Your task to perform on an android device: Search for vegetarian restaurants on Maps Image 0: 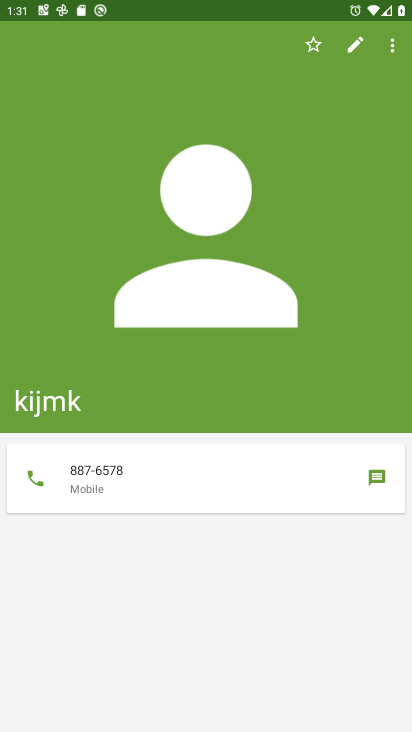
Step 0: drag from (170, 628) to (267, 226)
Your task to perform on an android device: Search for vegetarian restaurants on Maps Image 1: 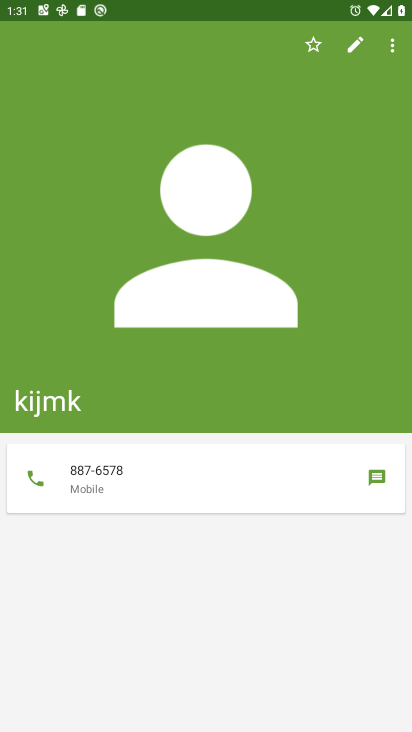
Step 1: press home button
Your task to perform on an android device: Search for vegetarian restaurants on Maps Image 2: 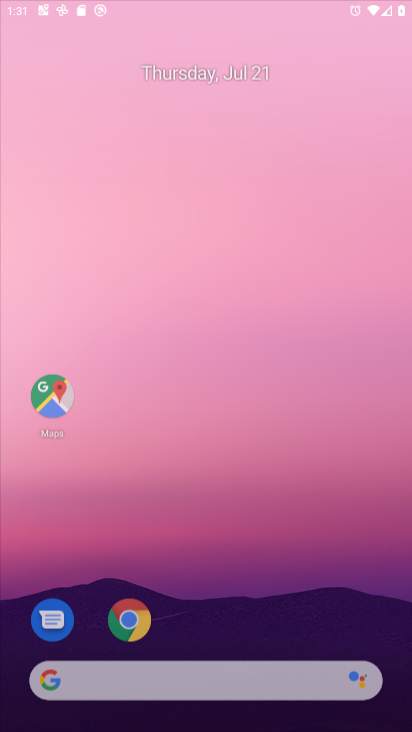
Step 2: drag from (145, 646) to (311, 241)
Your task to perform on an android device: Search for vegetarian restaurants on Maps Image 3: 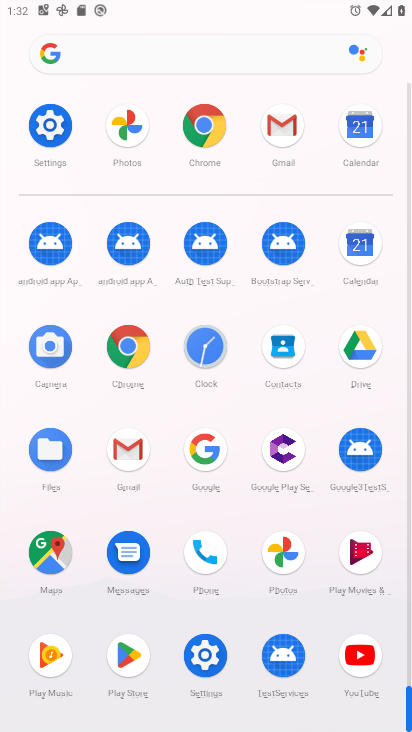
Step 3: click (54, 555)
Your task to perform on an android device: Search for vegetarian restaurants on Maps Image 4: 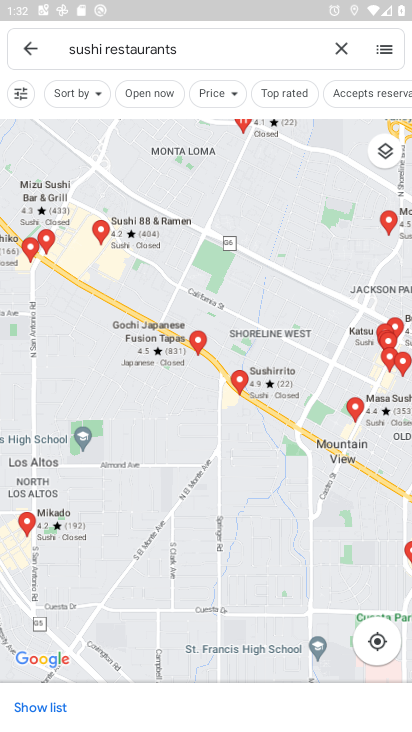
Step 4: click (341, 58)
Your task to perform on an android device: Search for vegetarian restaurants on Maps Image 5: 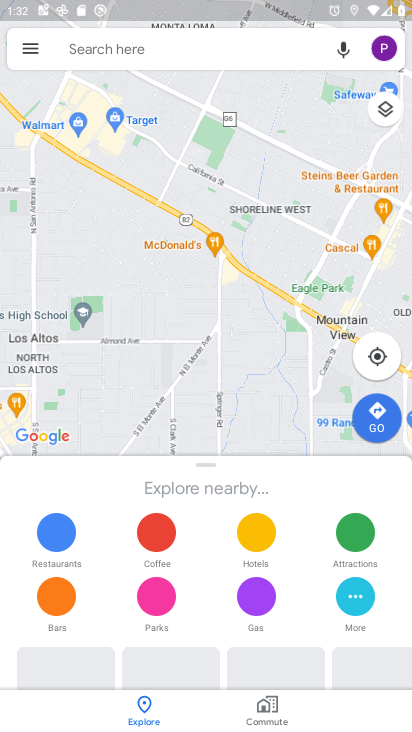
Step 5: click (168, 63)
Your task to perform on an android device: Search for vegetarian restaurants on Maps Image 6: 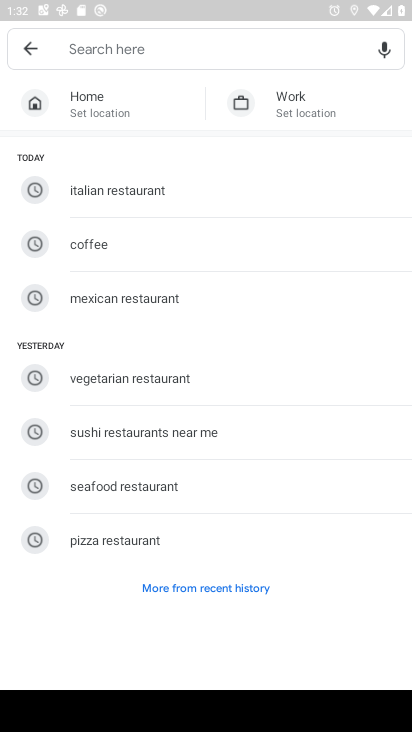
Step 6: click (114, 384)
Your task to perform on an android device: Search for vegetarian restaurants on Maps Image 7: 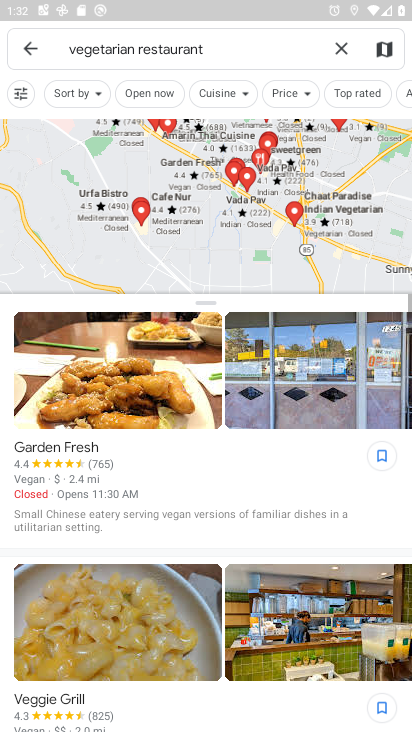
Step 7: task complete